Your task to perform on an android device: Go to ESPN.com Image 0: 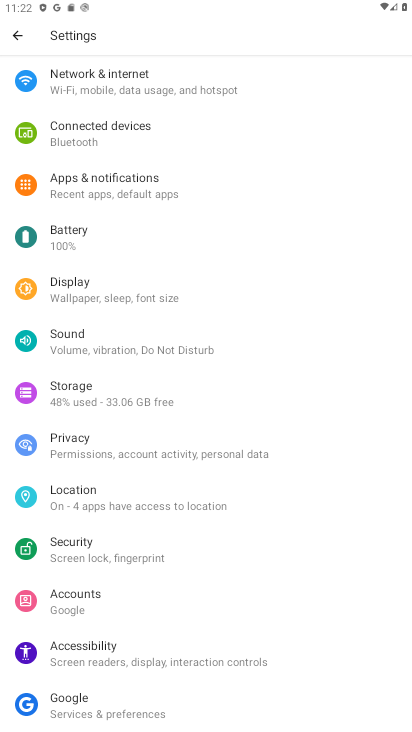
Step 0: press home button
Your task to perform on an android device: Go to ESPN.com Image 1: 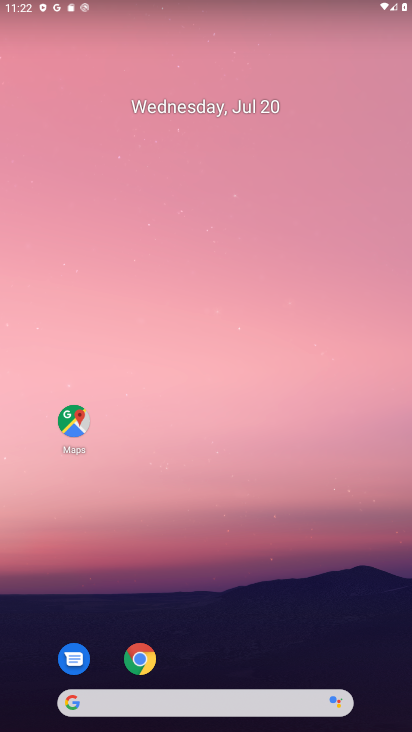
Step 1: click (149, 651)
Your task to perform on an android device: Go to ESPN.com Image 2: 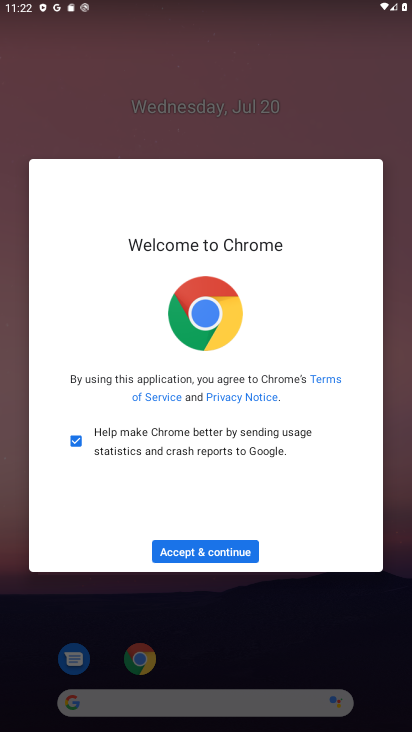
Step 2: click (218, 549)
Your task to perform on an android device: Go to ESPN.com Image 3: 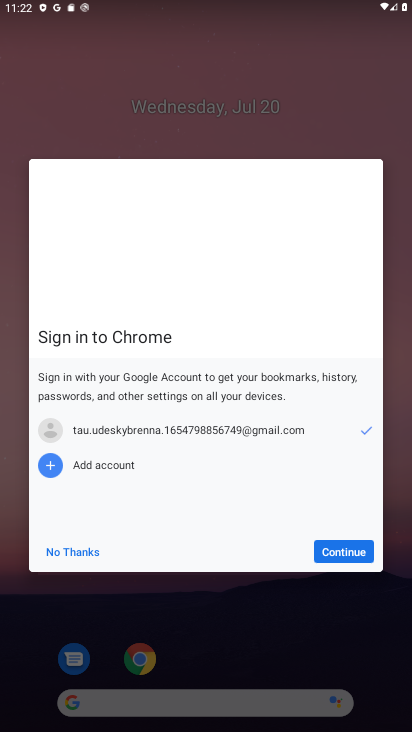
Step 3: click (59, 551)
Your task to perform on an android device: Go to ESPN.com Image 4: 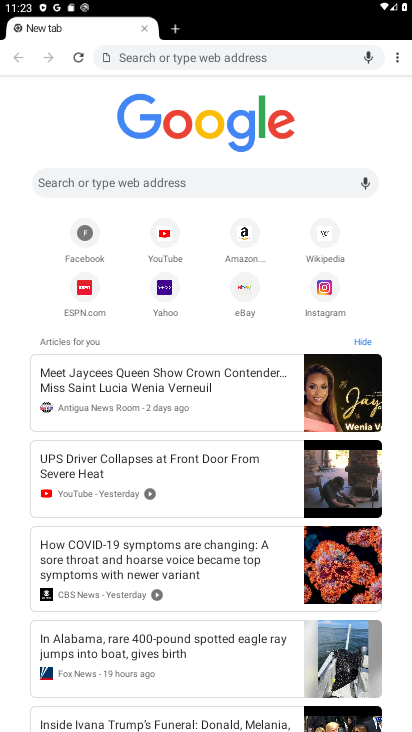
Step 4: click (93, 295)
Your task to perform on an android device: Go to ESPN.com Image 5: 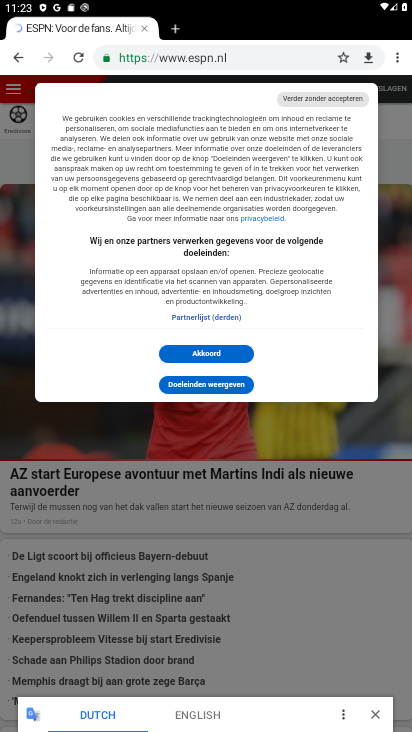
Step 5: task complete